Your task to perform on an android device: turn on wifi Image 0: 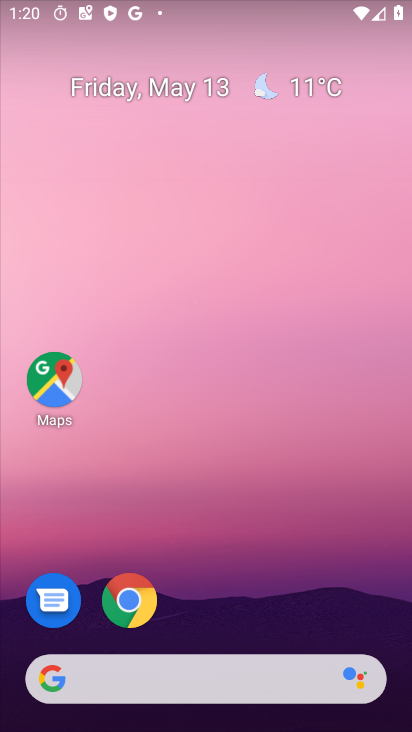
Step 0: drag from (406, 231) to (407, 174)
Your task to perform on an android device: turn on wifi Image 1: 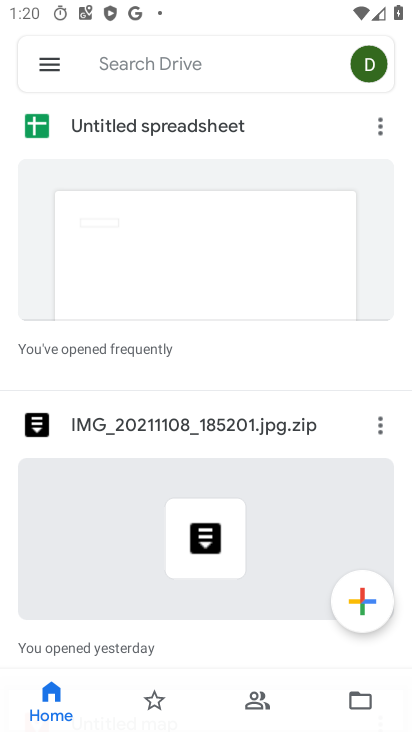
Step 1: drag from (206, 528) to (192, 0)
Your task to perform on an android device: turn on wifi Image 2: 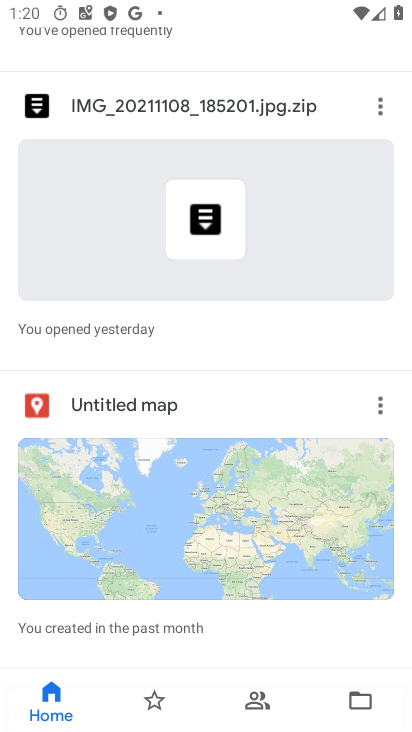
Step 2: drag from (222, 471) to (266, 172)
Your task to perform on an android device: turn on wifi Image 3: 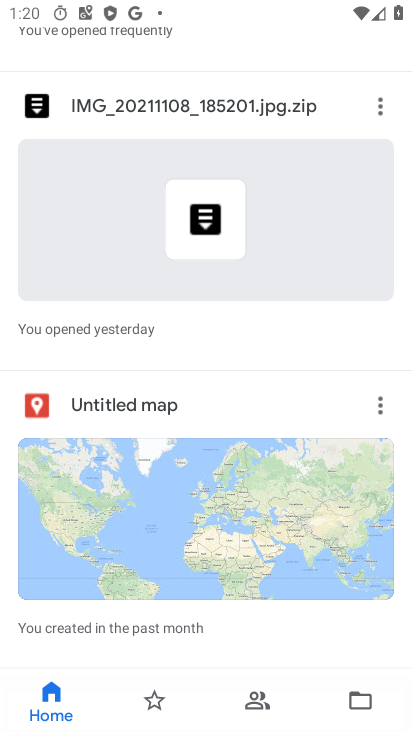
Step 3: drag from (289, 640) to (330, 243)
Your task to perform on an android device: turn on wifi Image 4: 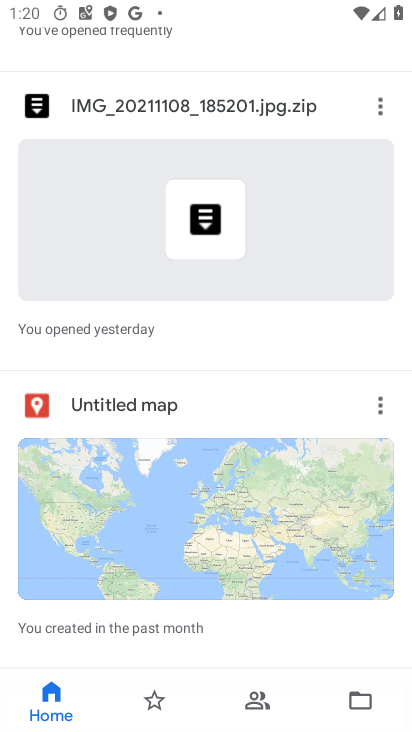
Step 4: drag from (330, 231) to (350, 482)
Your task to perform on an android device: turn on wifi Image 5: 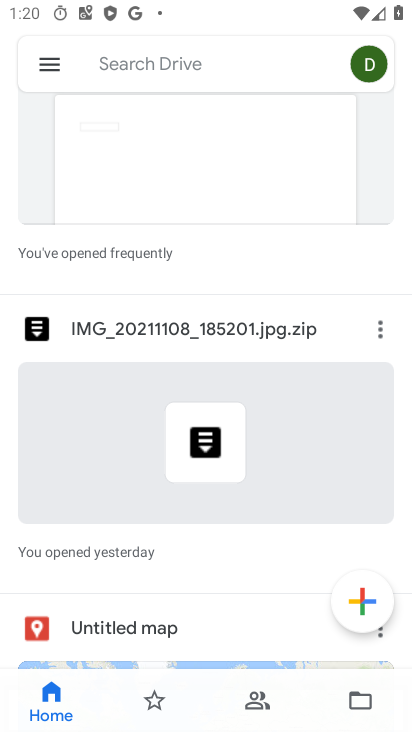
Step 5: press home button
Your task to perform on an android device: turn on wifi Image 6: 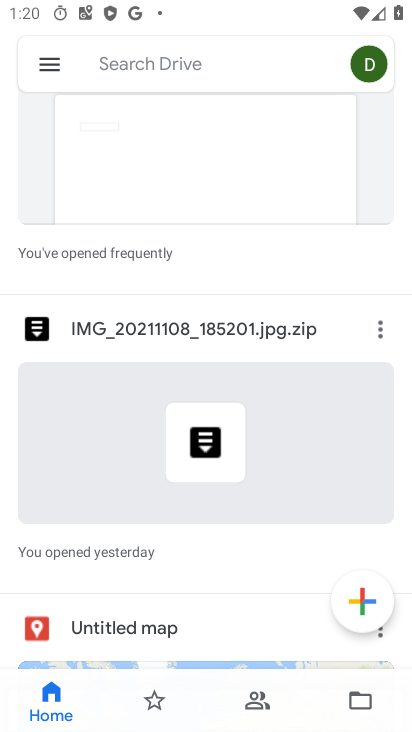
Step 6: click (400, 345)
Your task to perform on an android device: turn on wifi Image 7: 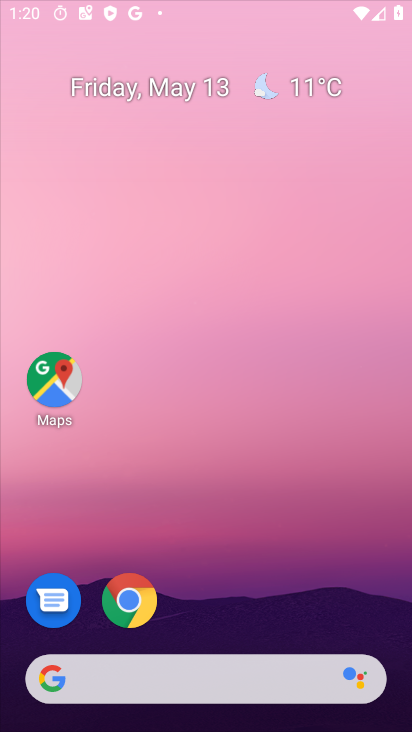
Step 7: drag from (278, 257) to (256, 679)
Your task to perform on an android device: turn on wifi Image 8: 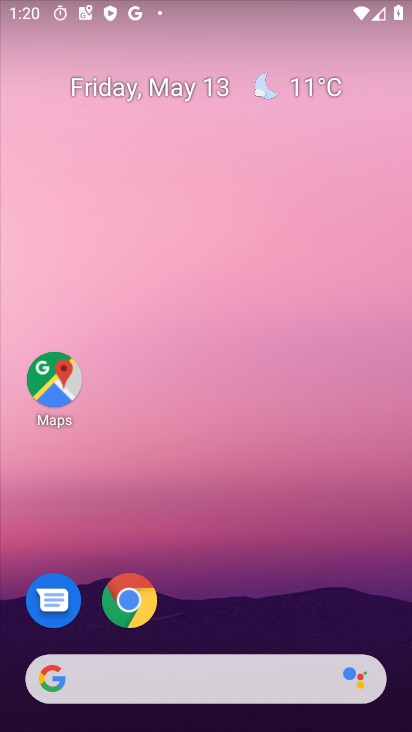
Step 8: drag from (229, 641) to (342, 172)
Your task to perform on an android device: turn on wifi Image 9: 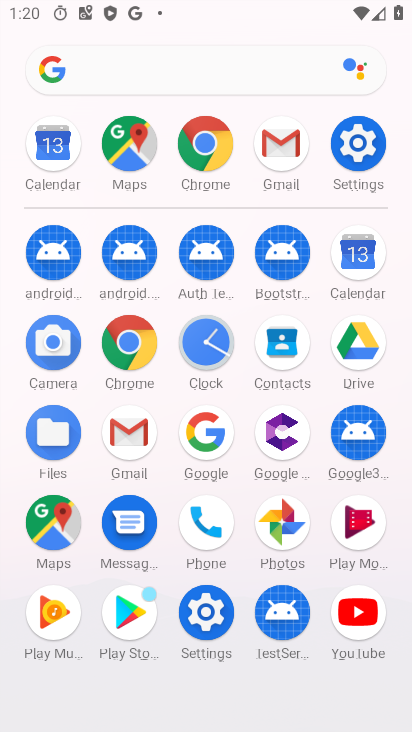
Step 9: click (357, 167)
Your task to perform on an android device: turn on wifi Image 10: 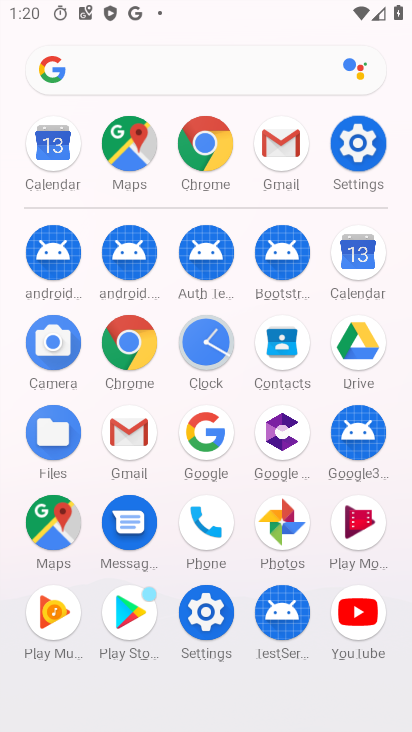
Step 10: click (357, 164)
Your task to perform on an android device: turn on wifi Image 11: 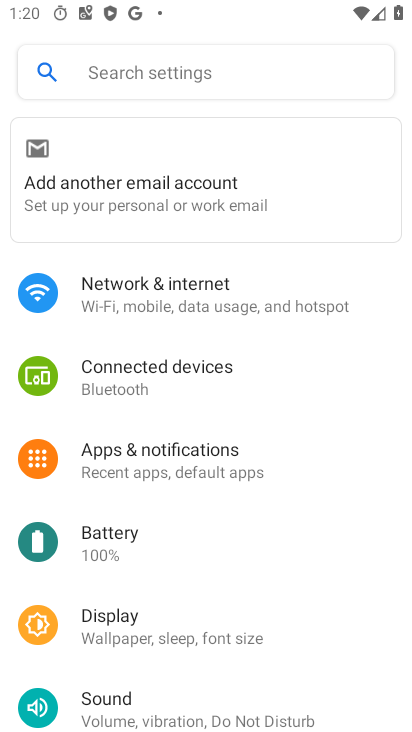
Step 11: click (125, 311)
Your task to perform on an android device: turn on wifi Image 12: 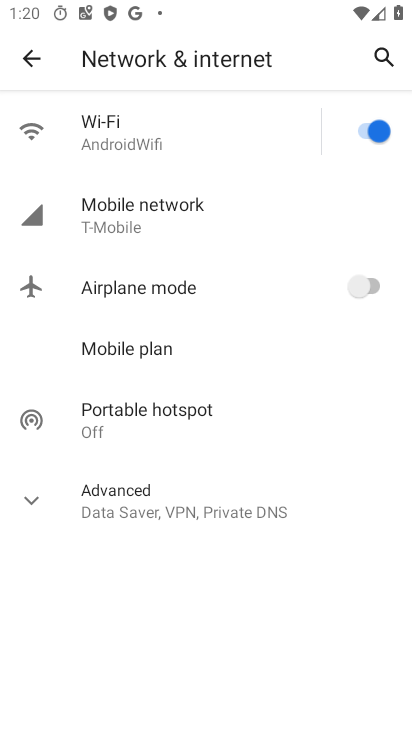
Step 12: click (218, 153)
Your task to perform on an android device: turn on wifi Image 13: 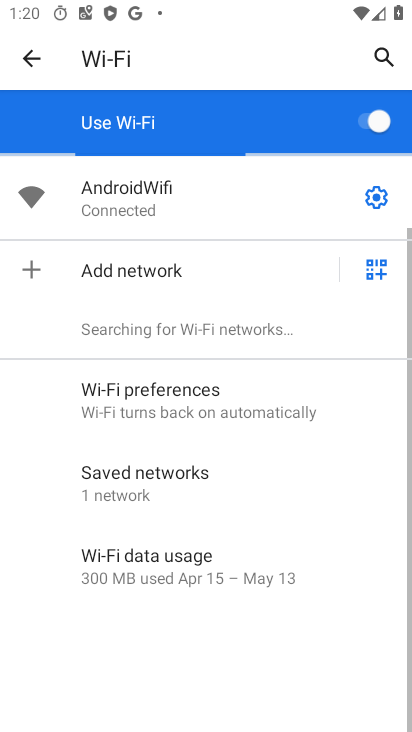
Step 13: task complete